Your task to perform on an android device: turn off picture-in-picture Image 0: 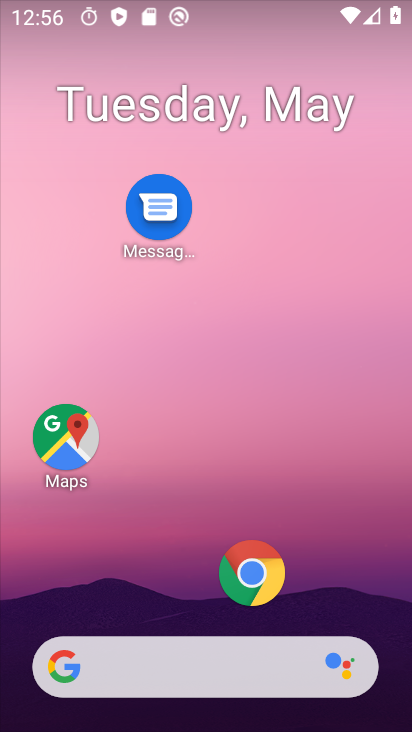
Step 0: click (233, 568)
Your task to perform on an android device: turn off picture-in-picture Image 1: 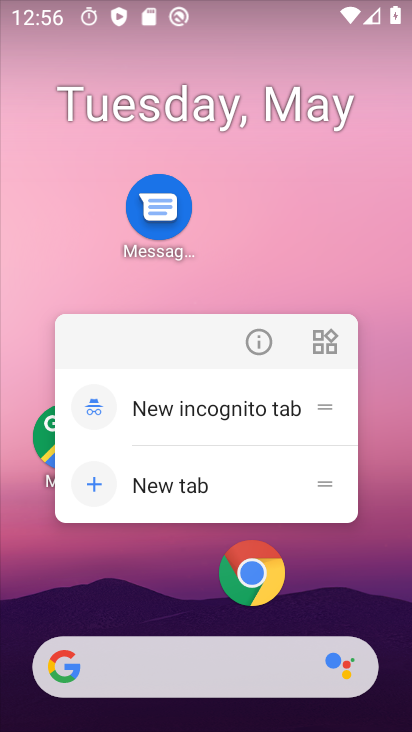
Step 1: click (262, 343)
Your task to perform on an android device: turn off picture-in-picture Image 2: 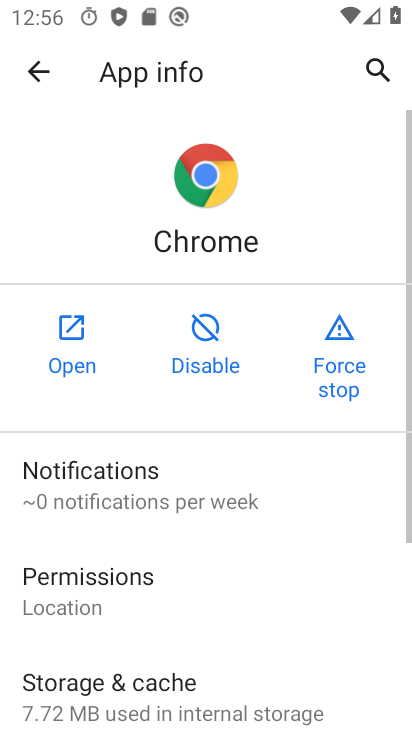
Step 2: drag from (138, 579) to (191, 251)
Your task to perform on an android device: turn off picture-in-picture Image 3: 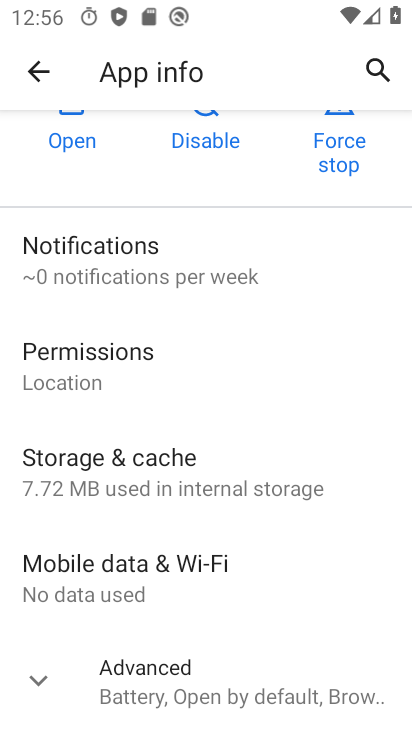
Step 3: drag from (160, 494) to (198, 262)
Your task to perform on an android device: turn off picture-in-picture Image 4: 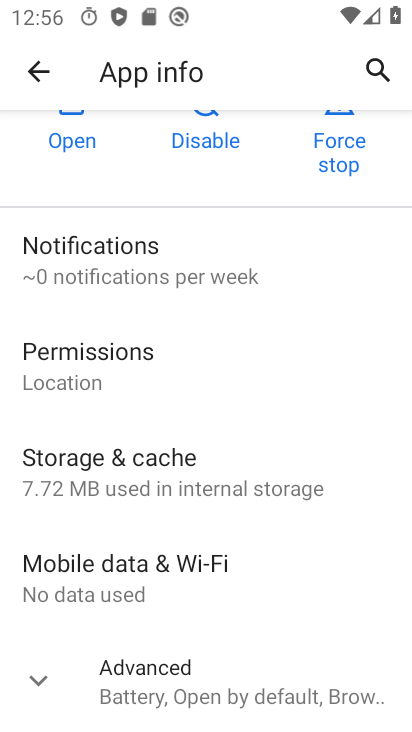
Step 4: click (100, 681)
Your task to perform on an android device: turn off picture-in-picture Image 5: 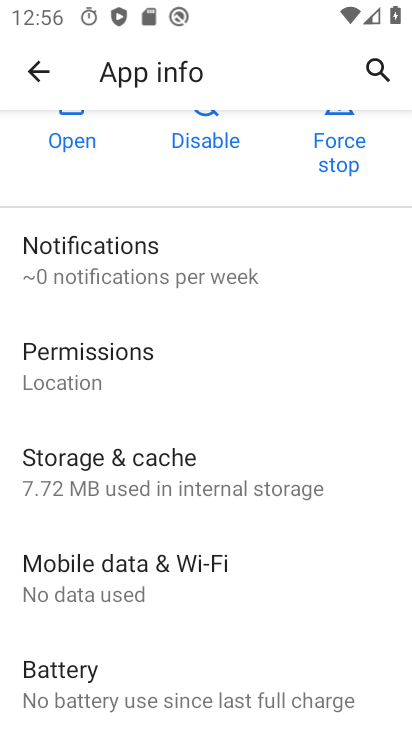
Step 5: drag from (158, 612) to (228, 286)
Your task to perform on an android device: turn off picture-in-picture Image 6: 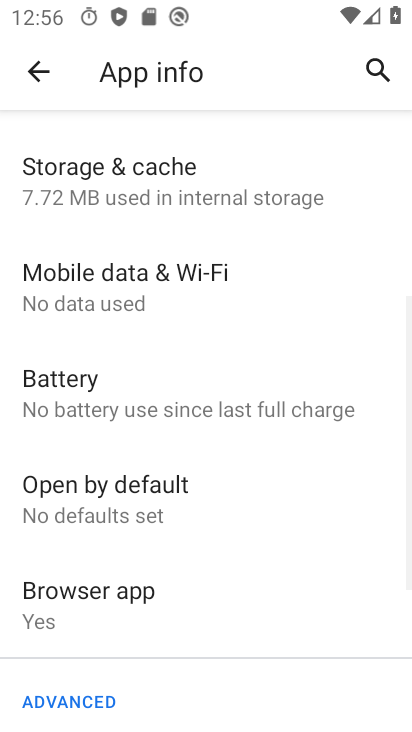
Step 6: drag from (171, 557) to (226, 282)
Your task to perform on an android device: turn off picture-in-picture Image 7: 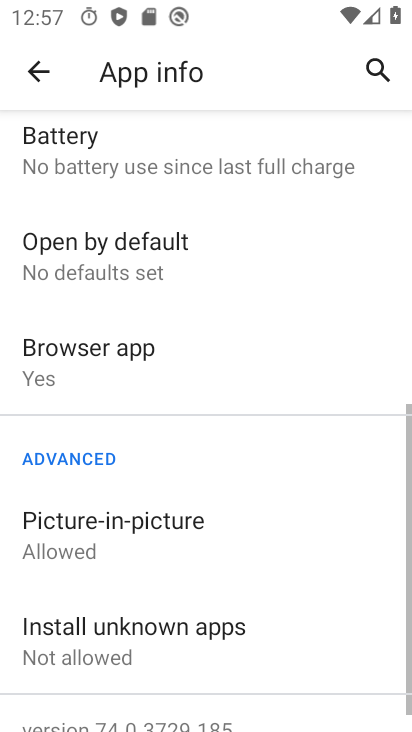
Step 7: click (137, 549)
Your task to perform on an android device: turn off picture-in-picture Image 8: 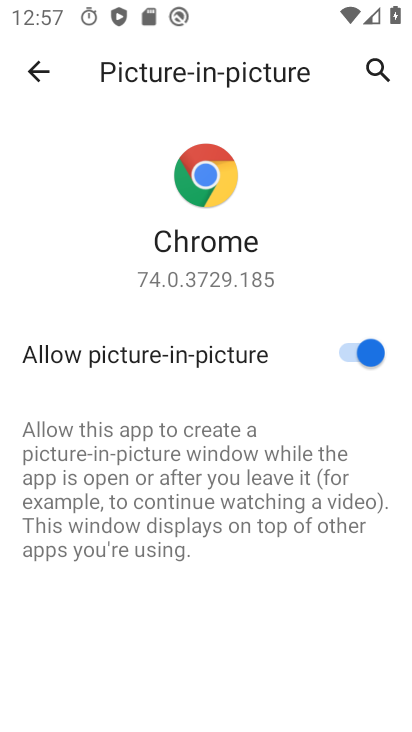
Step 8: click (341, 357)
Your task to perform on an android device: turn off picture-in-picture Image 9: 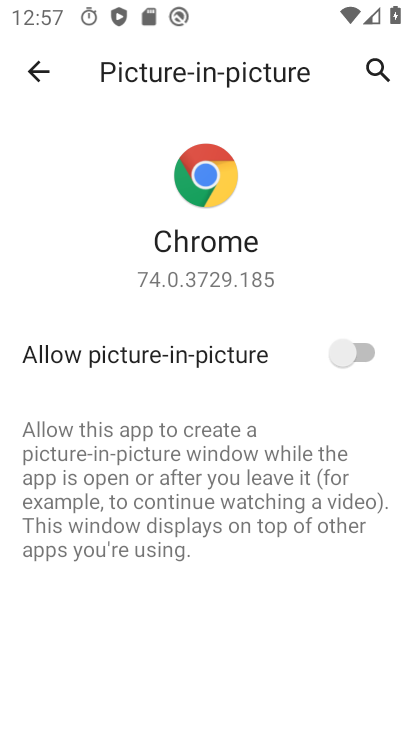
Step 9: task complete